Your task to perform on an android device: Open Youtube and go to the subscriptions tab Image 0: 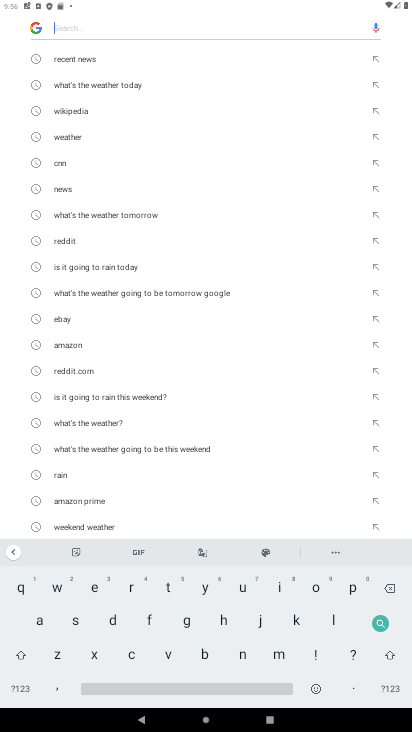
Step 0: press home button
Your task to perform on an android device: Open Youtube and go to the subscriptions tab Image 1: 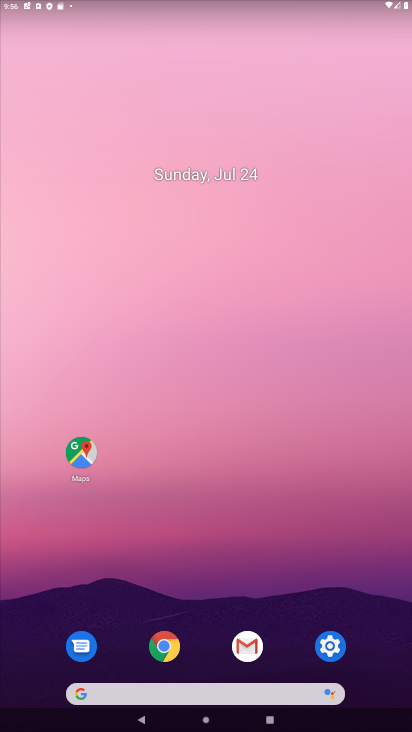
Step 1: drag from (285, 711) to (285, 152)
Your task to perform on an android device: Open Youtube and go to the subscriptions tab Image 2: 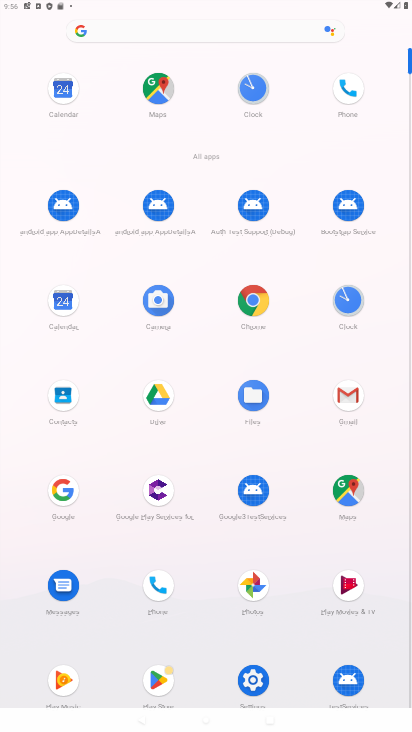
Step 2: click (314, 412)
Your task to perform on an android device: Open Youtube and go to the subscriptions tab Image 3: 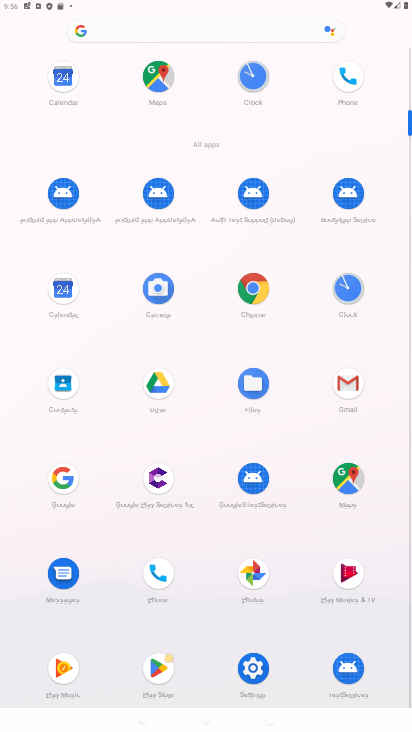
Step 3: drag from (298, 599) to (311, 443)
Your task to perform on an android device: Open Youtube and go to the subscriptions tab Image 4: 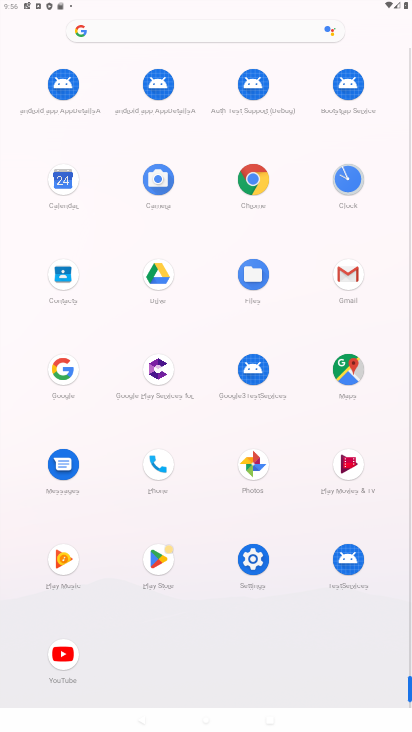
Step 4: click (66, 655)
Your task to perform on an android device: Open Youtube and go to the subscriptions tab Image 5: 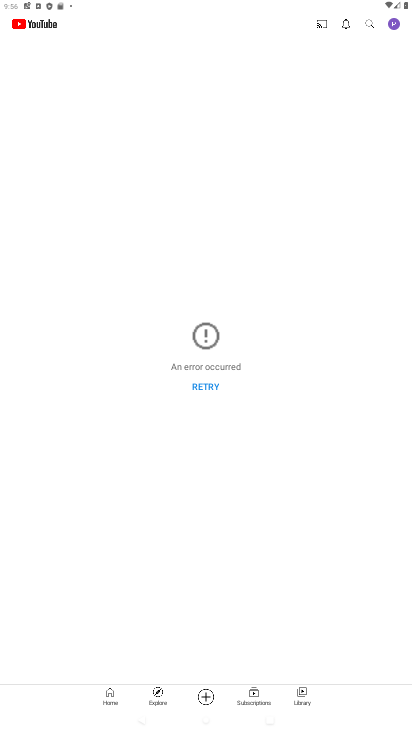
Step 5: click (250, 699)
Your task to perform on an android device: Open Youtube and go to the subscriptions tab Image 6: 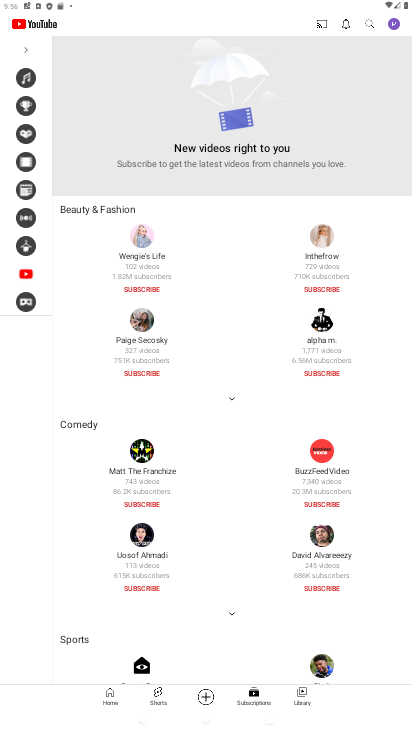
Step 6: task complete